Your task to perform on an android device: Open the phone app and click the voicemail tab. Image 0: 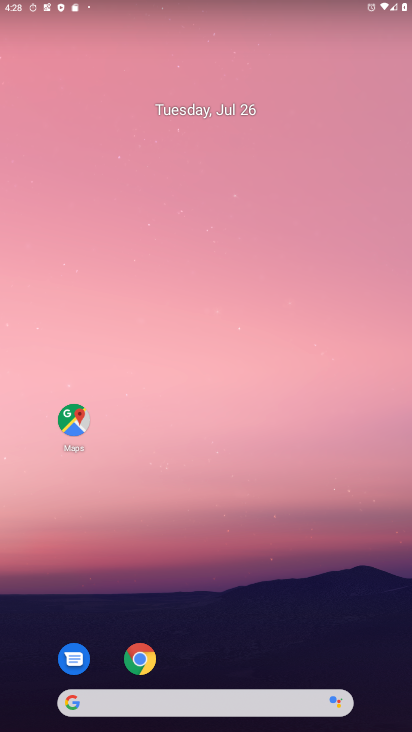
Step 0: press home button
Your task to perform on an android device: Open the phone app and click the voicemail tab. Image 1: 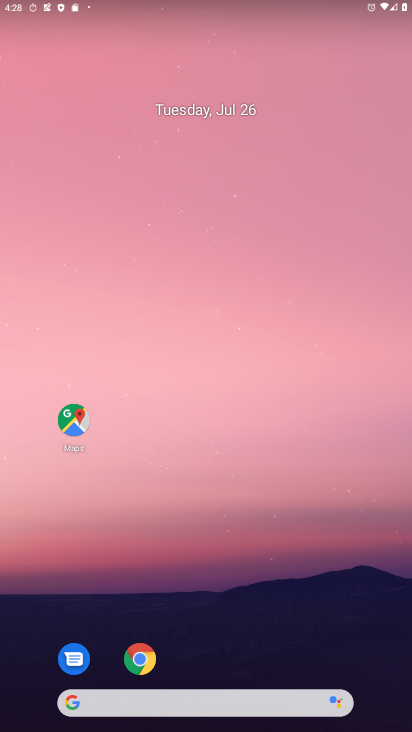
Step 1: drag from (265, 646) to (305, 202)
Your task to perform on an android device: Open the phone app and click the voicemail tab. Image 2: 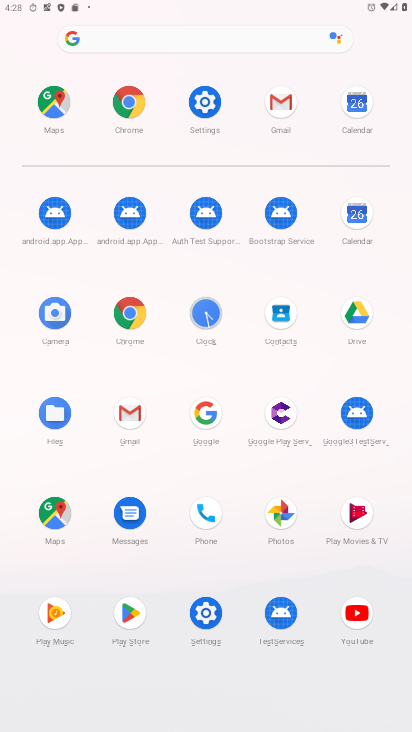
Step 2: click (205, 512)
Your task to perform on an android device: Open the phone app and click the voicemail tab. Image 3: 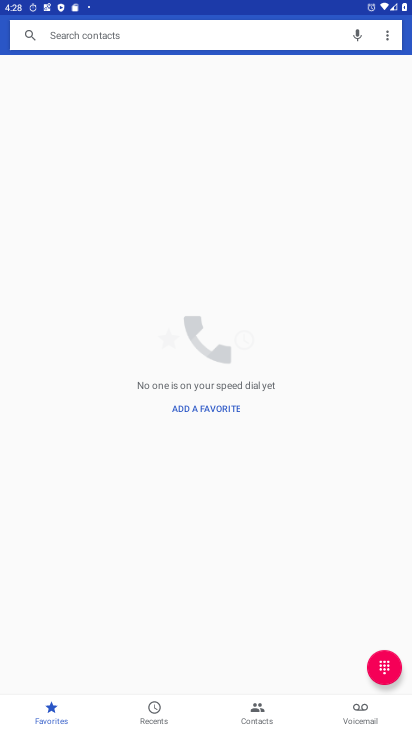
Step 3: click (350, 709)
Your task to perform on an android device: Open the phone app and click the voicemail tab. Image 4: 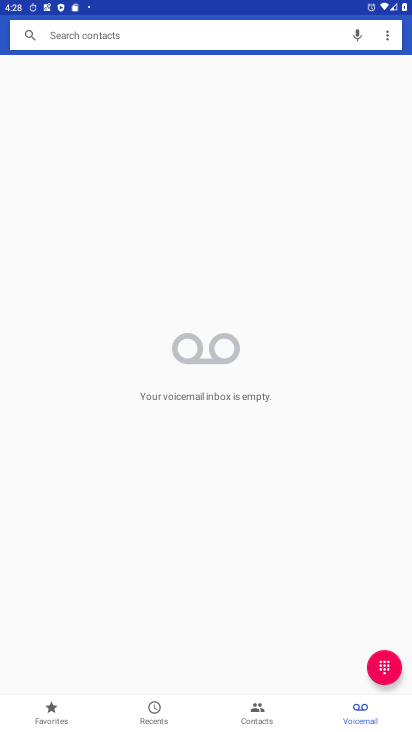
Step 4: task complete